Your task to perform on an android device: Go to ESPN.com Image 0: 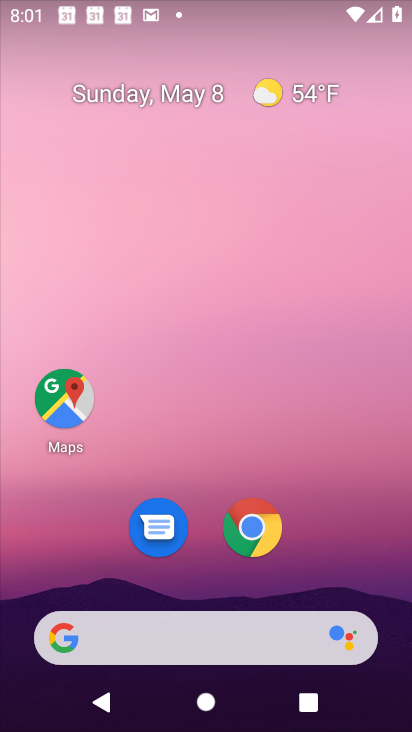
Step 0: click (221, 525)
Your task to perform on an android device: Go to ESPN.com Image 1: 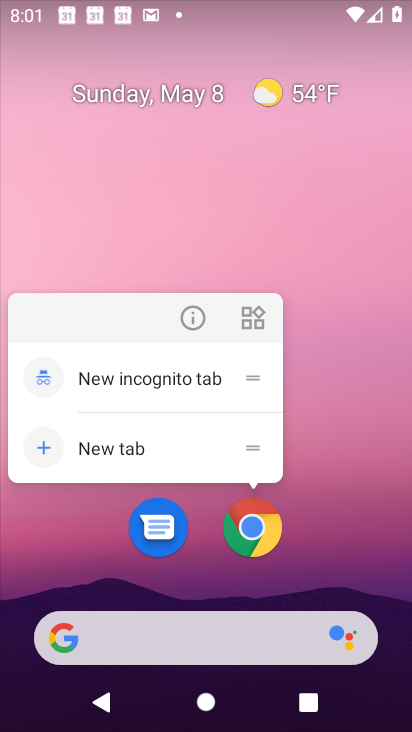
Step 1: click (265, 530)
Your task to perform on an android device: Go to ESPN.com Image 2: 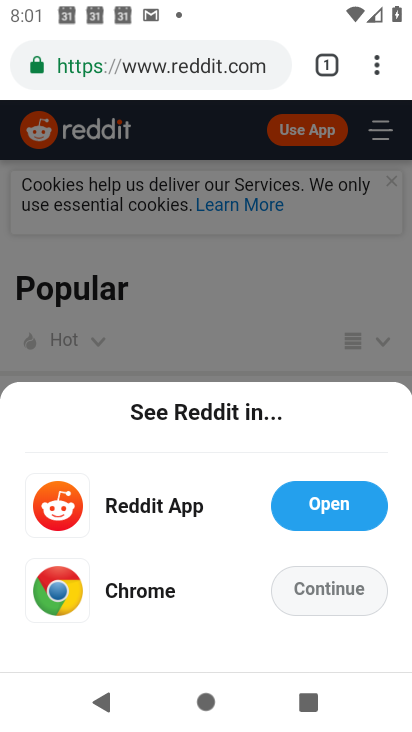
Step 2: click (195, 97)
Your task to perform on an android device: Go to ESPN.com Image 3: 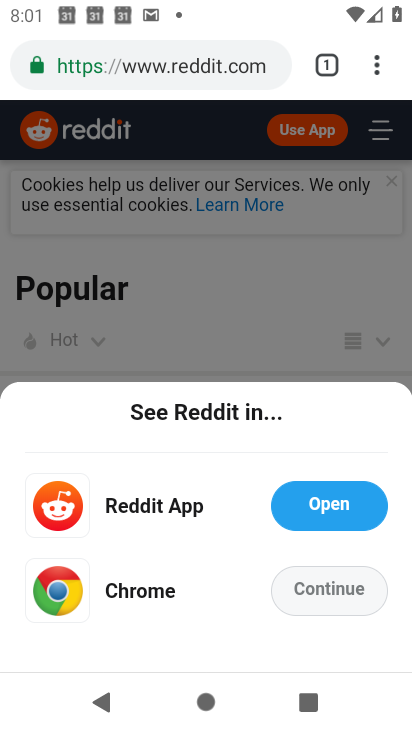
Step 3: click (192, 78)
Your task to perform on an android device: Go to ESPN.com Image 4: 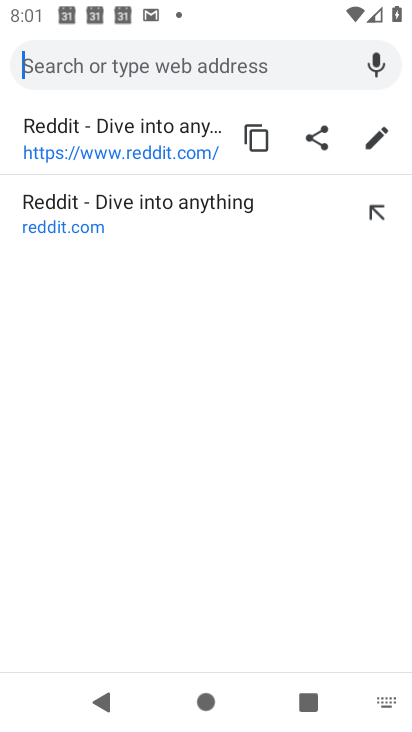
Step 4: click (195, 70)
Your task to perform on an android device: Go to ESPN.com Image 5: 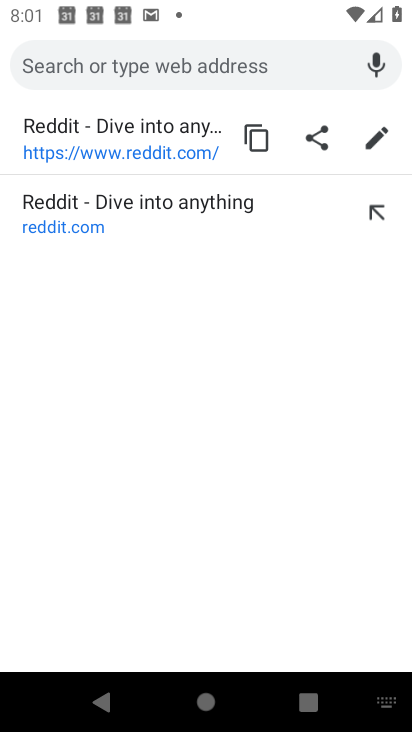
Step 5: type "ESPN.com"
Your task to perform on an android device: Go to ESPN.com Image 6: 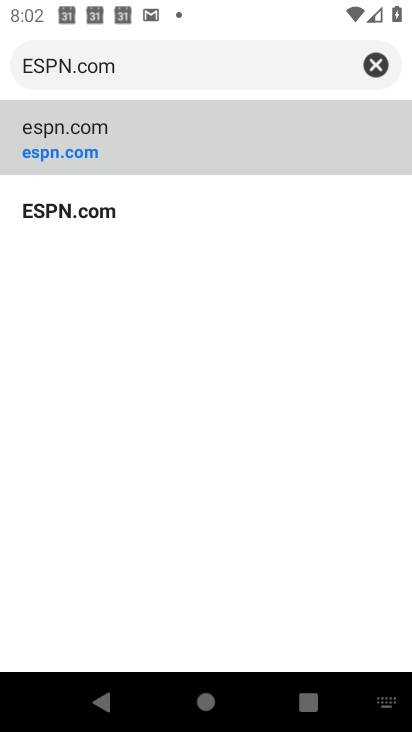
Step 6: click (199, 152)
Your task to perform on an android device: Go to ESPN.com Image 7: 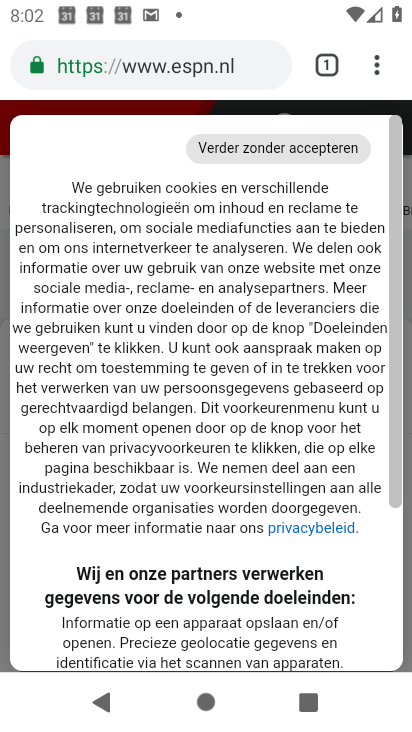
Step 7: task complete